Your task to perform on an android device: Open display settings Image 0: 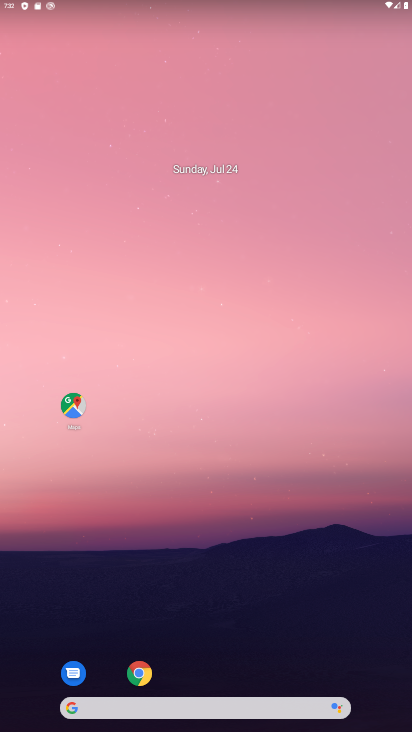
Step 0: drag from (197, 607) to (165, 9)
Your task to perform on an android device: Open display settings Image 1: 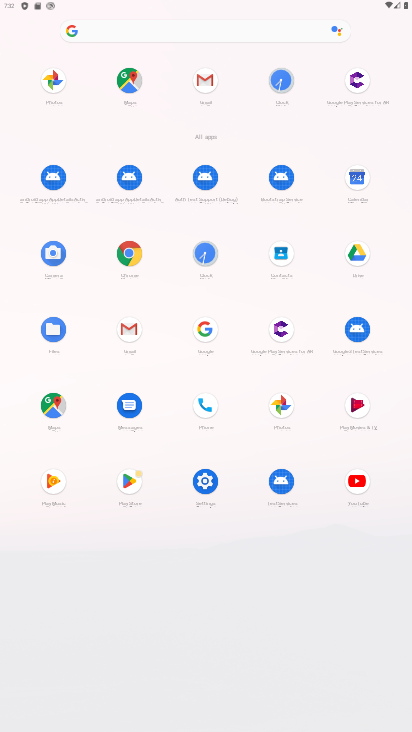
Step 1: click (206, 490)
Your task to perform on an android device: Open display settings Image 2: 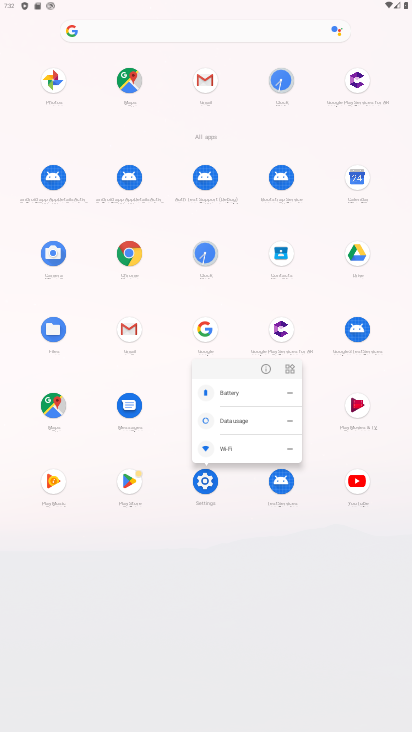
Step 2: click (267, 369)
Your task to perform on an android device: Open display settings Image 3: 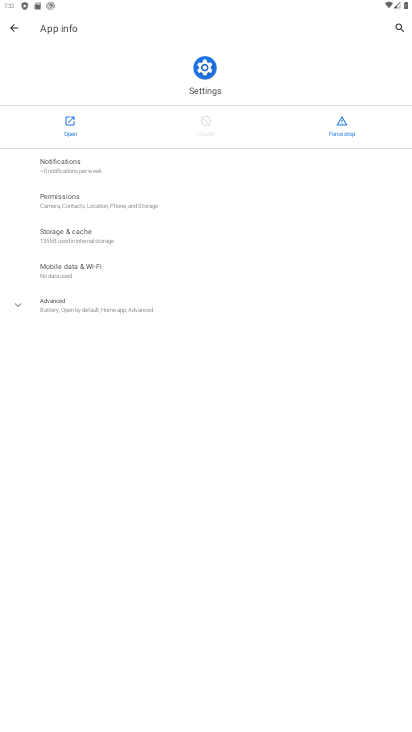
Step 3: click (79, 132)
Your task to perform on an android device: Open display settings Image 4: 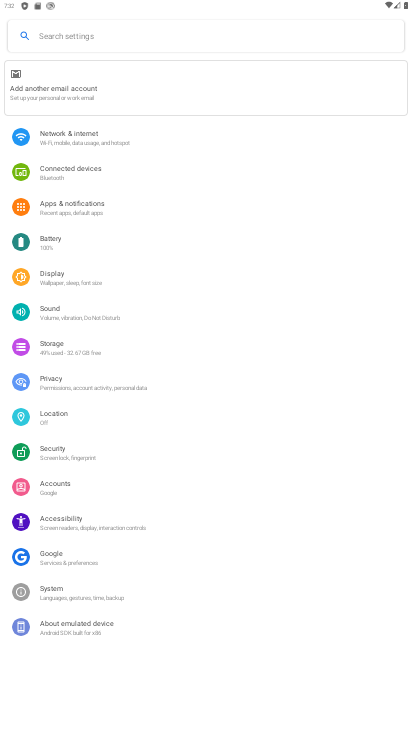
Step 4: click (73, 280)
Your task to perform on an android device: Open display settings Image 5: 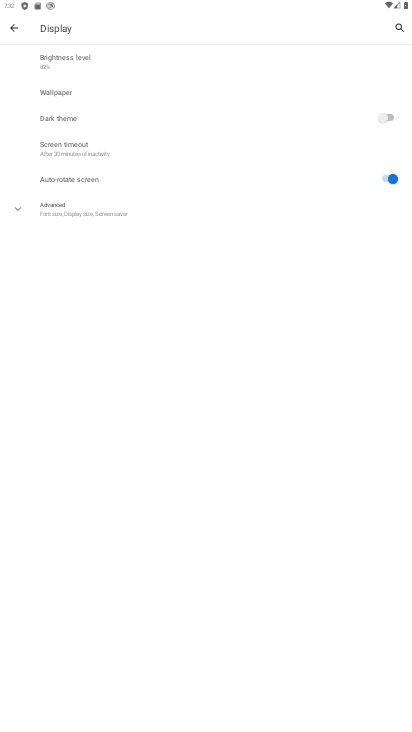
Step 5: task complete